Your task to perform on an android device: turn off picture-in-picture Image 0: 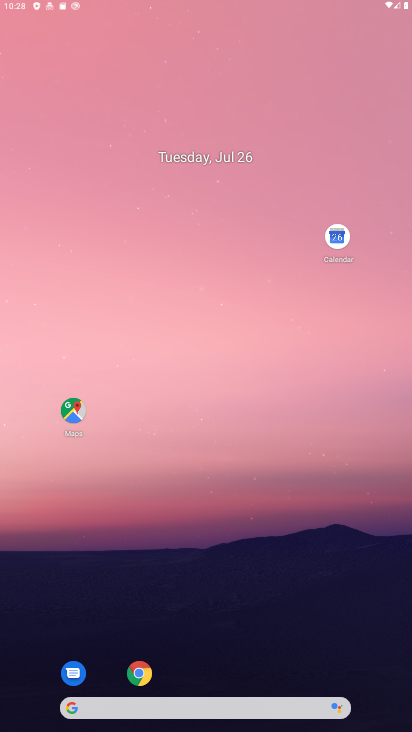
Step 0: drag from (120, 688) to (112, 86)
Your task to perform on an android device: turn off picture-in-picture Image 1: 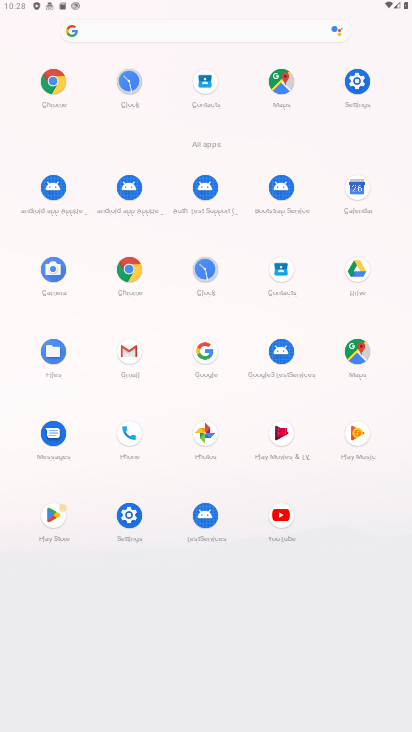
Step 1: click (131, 275)
Your task to perform on an android device: turn off picture-in-picture Image 2: 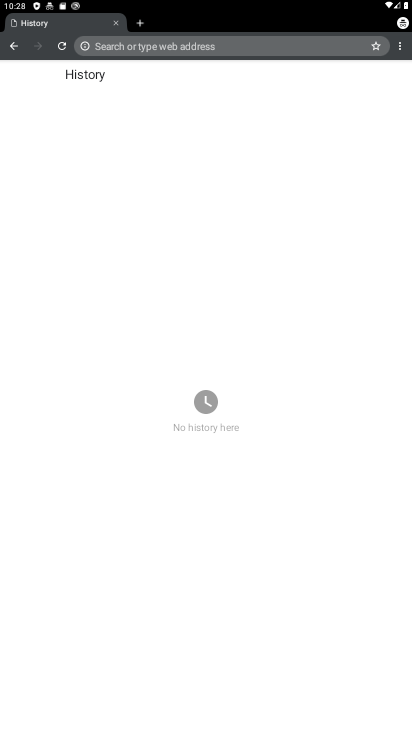
Step 2: press back button
Your task to perform on an android device: turn off picture-in-picture Image 3: 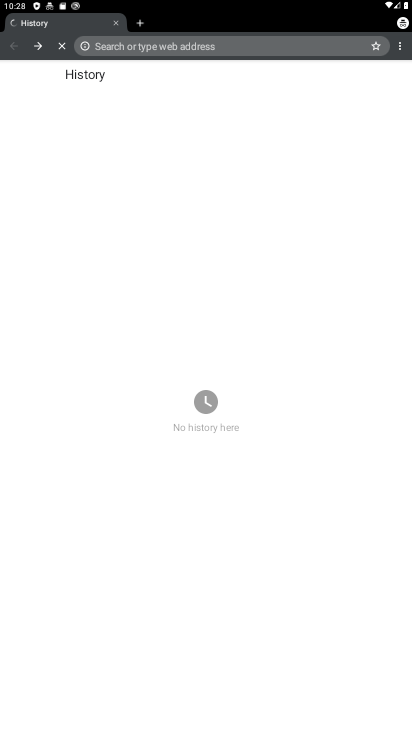
Step 3: press back button
Your task to perform on an android device: turn off picture-in-picture Image 4: 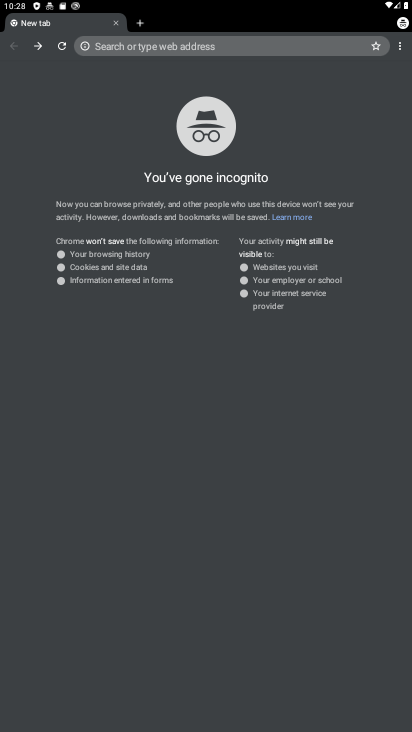
Step 4: press back button
Your task to perform on an android device: turn off picture-in-picture Image 5: 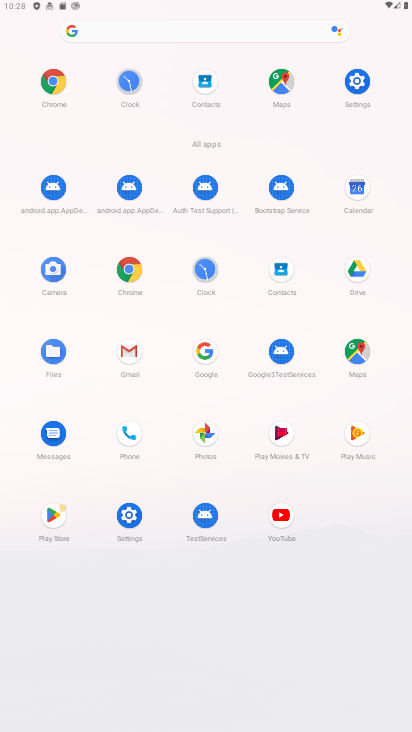
Step 5: click (132, 280)
Your task to perform on an android device: turn off picture-in-picture Image 6: 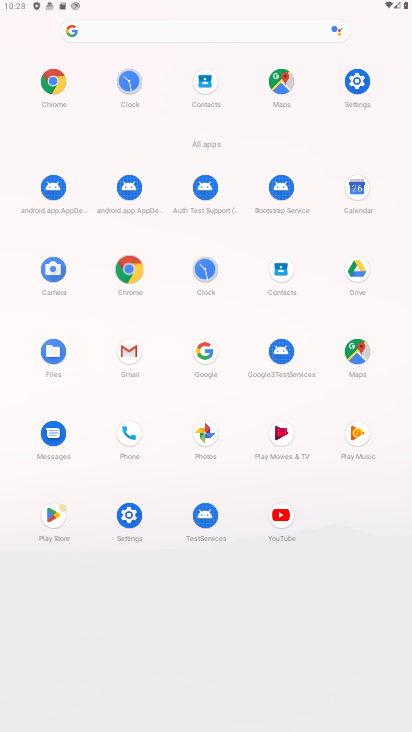
Step 6: click (131, 279)
Your task to perform on an android device: turn off picture-in-picture Image 7: 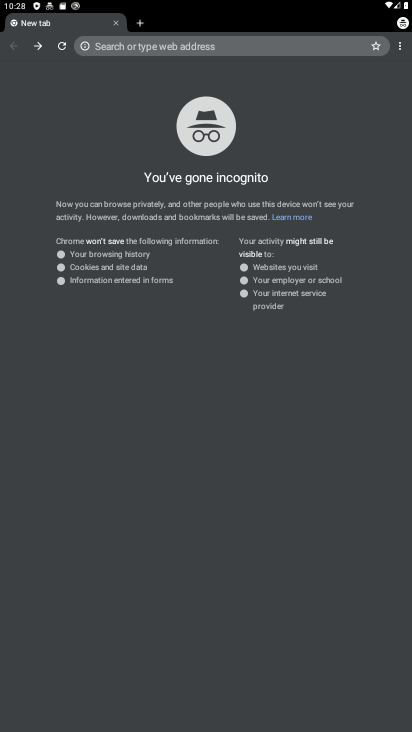
Step 7: drag from (400, 42) to (313, 183)
Your task to perform on an android device: turn off picture-in-picture Image 8: 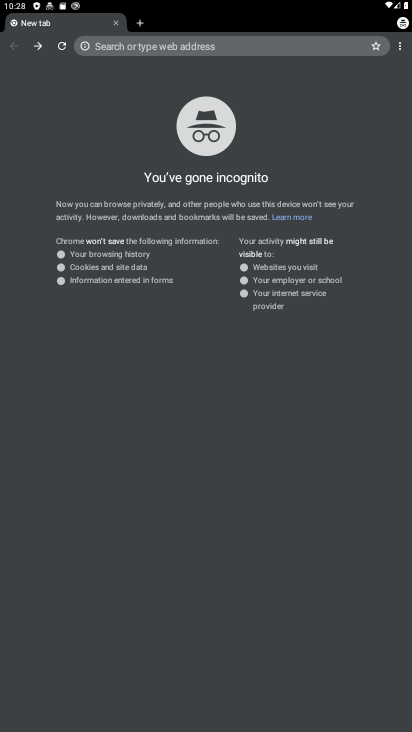
Step 8: click (214, 424)
Your task to perform on an android device: turn off picture-in-picture Image 9: 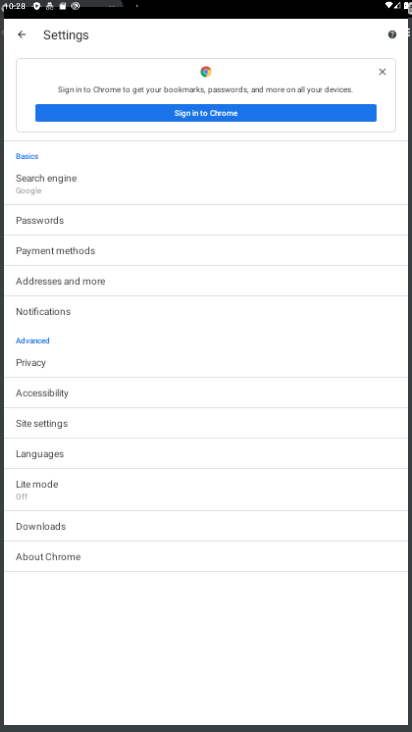
Step 9: click (223, 425)
Your task to perform on an android device: turn off picture-in-picture Image 10: 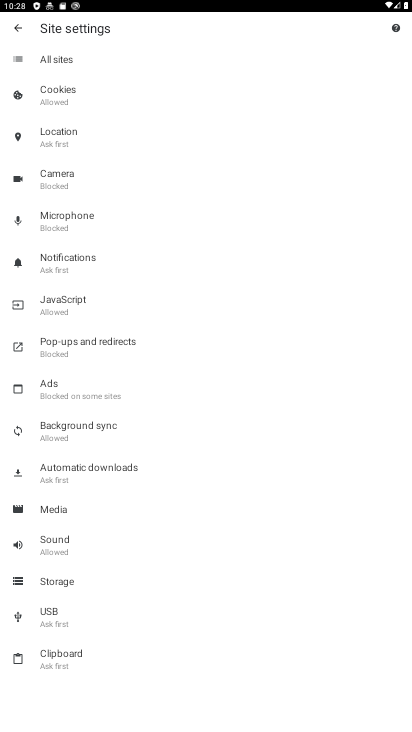
Step 10: click (25, 28)
Your task to perform on an android device: turn off picture-in-picture Image 11: 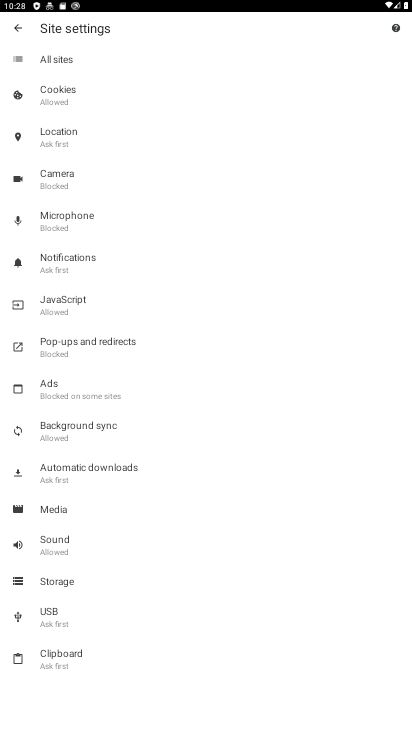
Step 11: click (25, 28)
Your task to perform on an android device: turn off picture-in-picture Image 12: 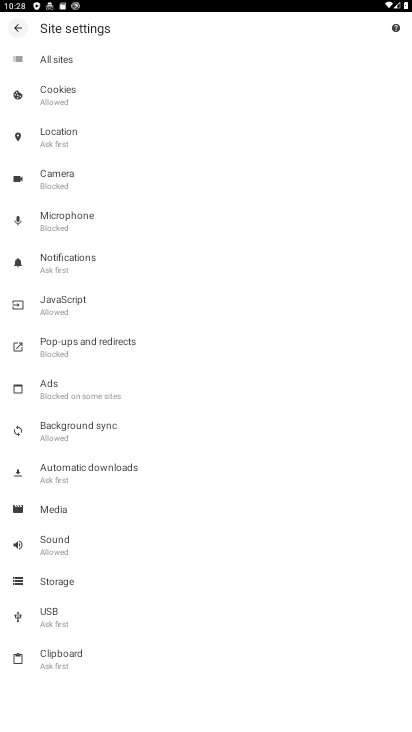
Step 12: click (25, 28)
Your task to perform on an android device: turn off picture-in-picture Image 13: 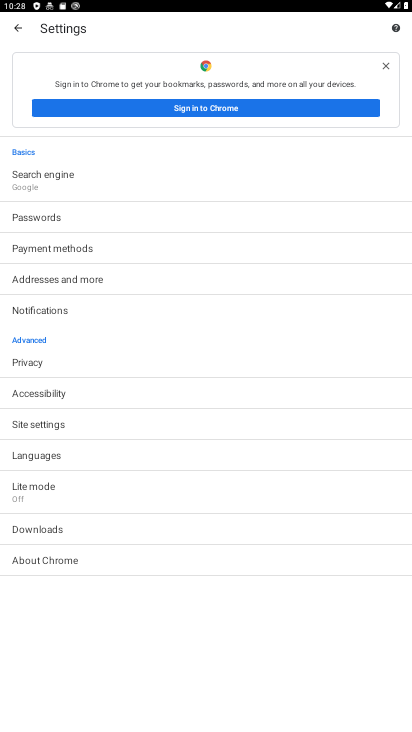
Step 13: click (13, 26)
Your task to perform on an android device: turn off picture-in-picture Image 14: 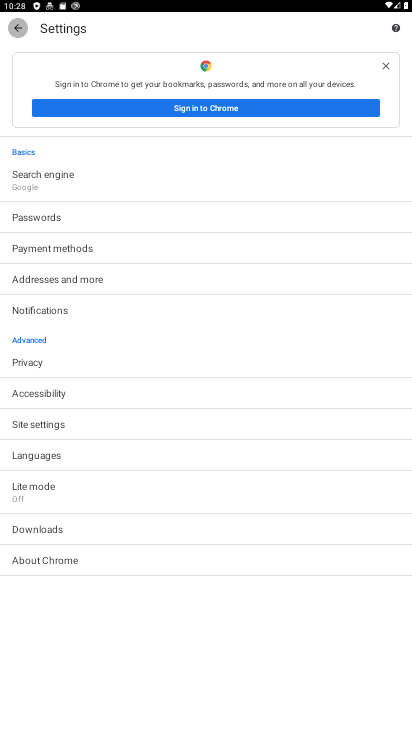
Step 14: click (20, 21)
Your task to perform on an android device: turn off picture-in-picture Image 15: 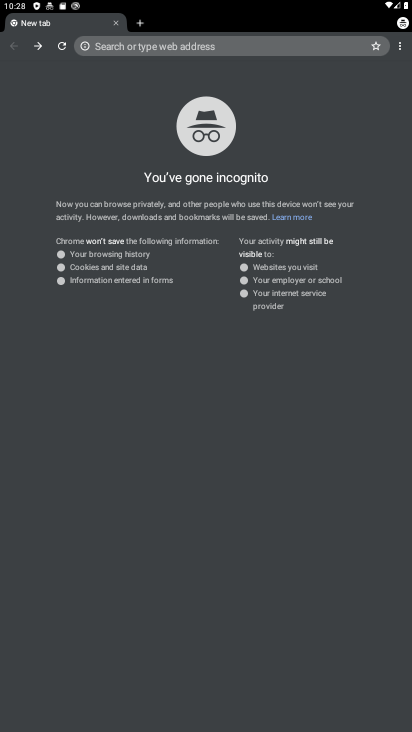
Step 15: press back button
Your task to perform on an android device: turn off picture-in-picture Image 16: 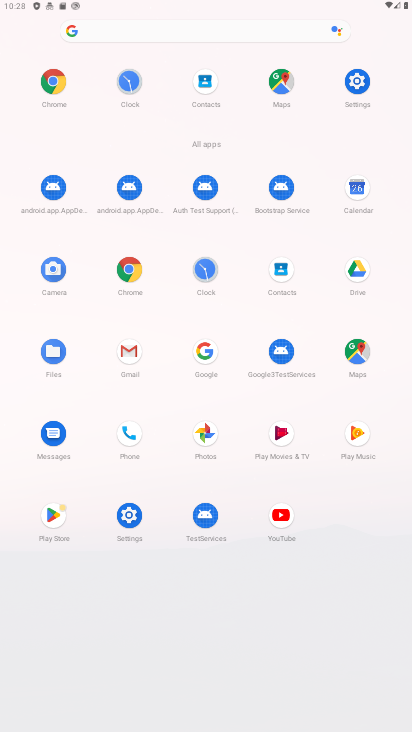
Step 16: click (131, 274)
Your task to perform on an android device: turn off picture-in-picture Image 17: 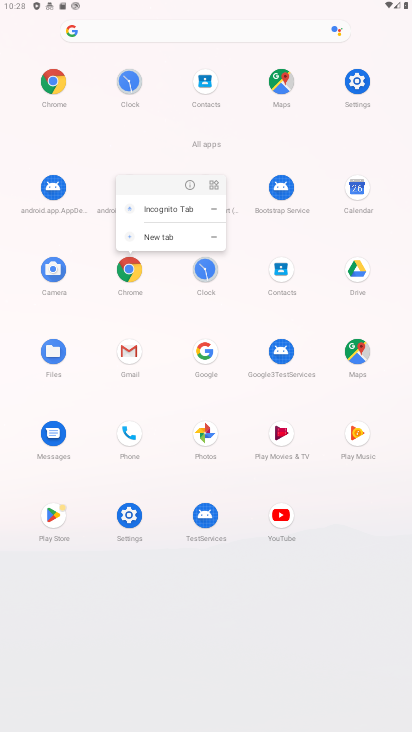
Step 17: click (190, 184)
Your task to perform on an android device: turn off picture-in-picture Image 18: 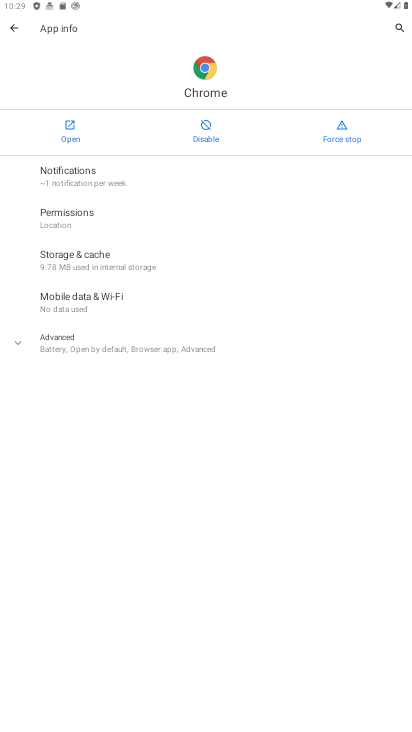
Step 18: click (69, 339)
Your task to perform on an android device: turn off picture-in-picture Image 19: 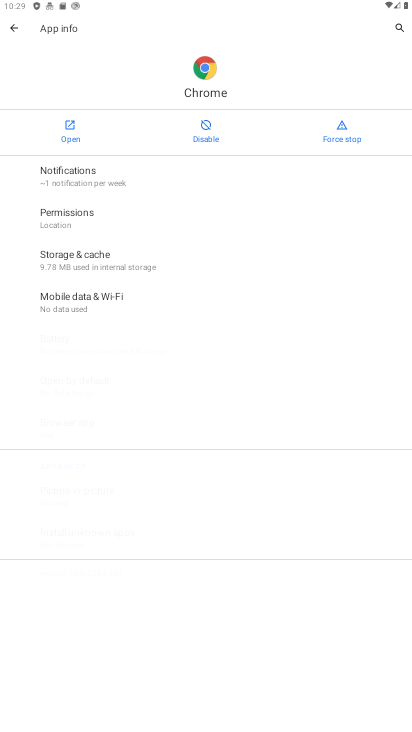
Step 19: click (74, 348)
Your task to perform on an android device: turn off picture-in-picture Image 20: 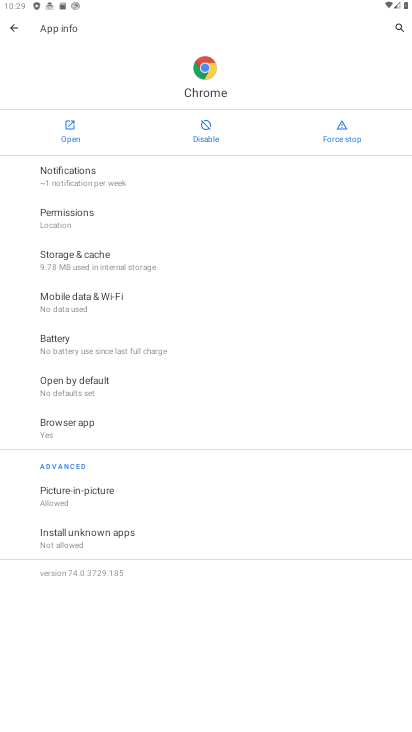
Step 20: click (72, 351)
Your task to perform on an android device: turn off picture-in-picture Image 21: 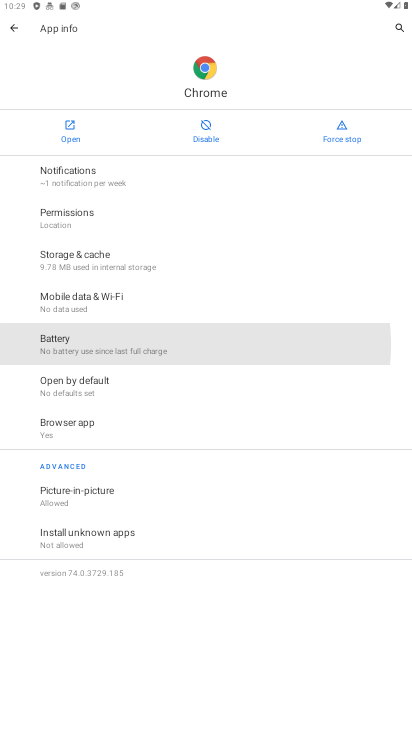
Step 21: click (72, 351)
Your task to perform on an android device: turn off picture-in-picture Image 22: 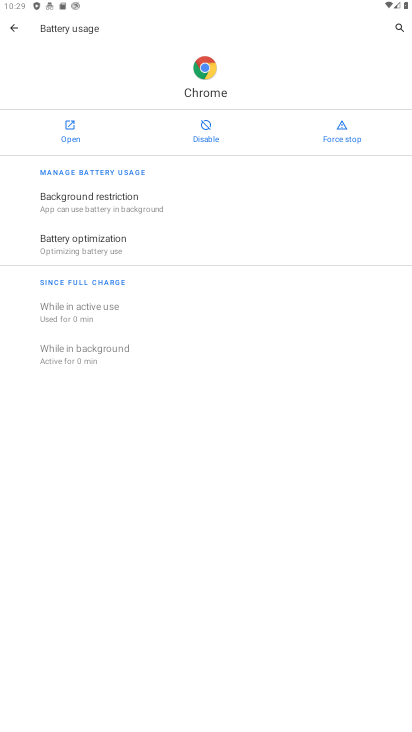
Step 22: click (5, 23)
Your task to perform on an android device: turn off picture-in-picture Image 23: 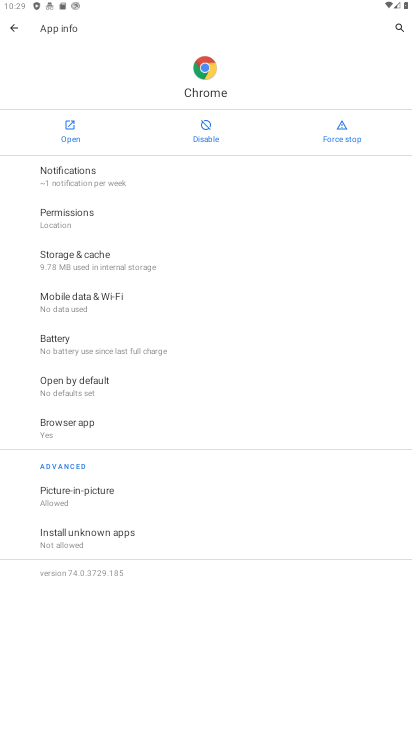
Step 23: click (54, 500)
Your task to perform on an android device: turn off picture-in-picture Image 24: 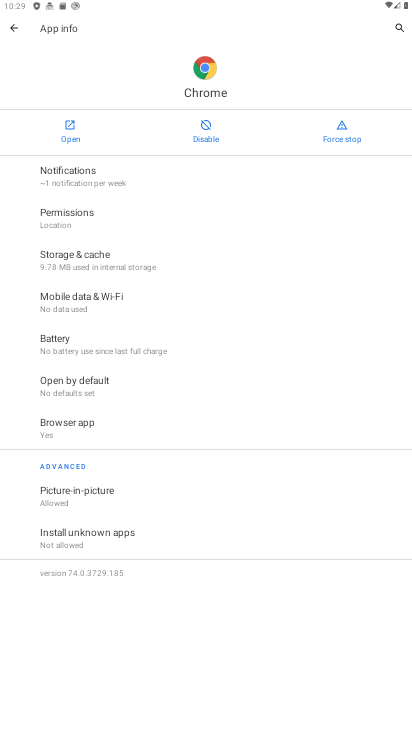
Step 24: click (56, 500)
Your task to perform on an android device: turn off picture-in-picture Image 25: 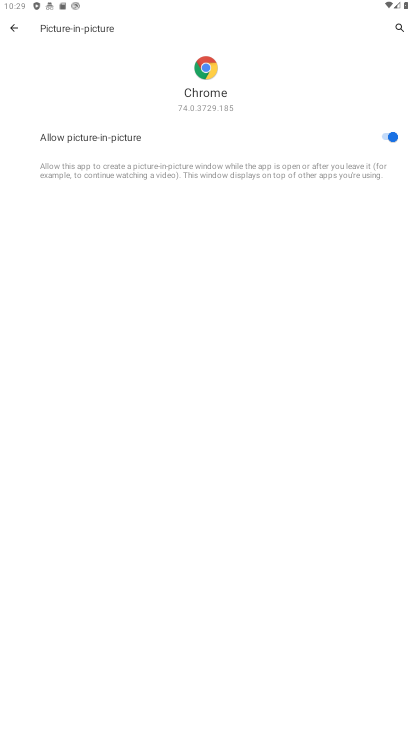
Step 25: click (392, 134)
Your task to perform on an android device: turn off picture-in-picture Image 26: 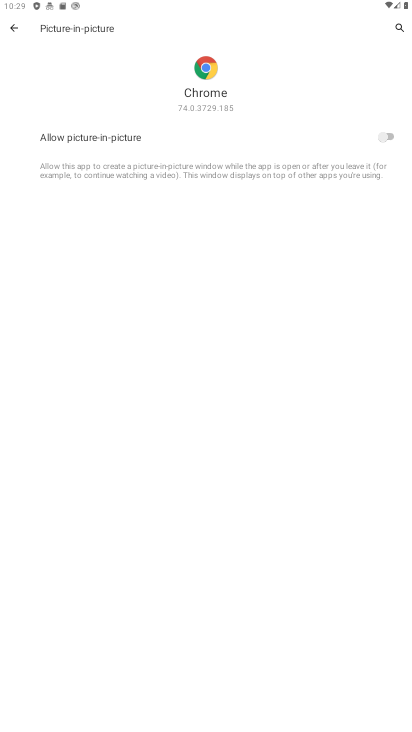
Step 26: task complete